Your task to perform on an android device: search for starred emails in the gmail app Image 0: 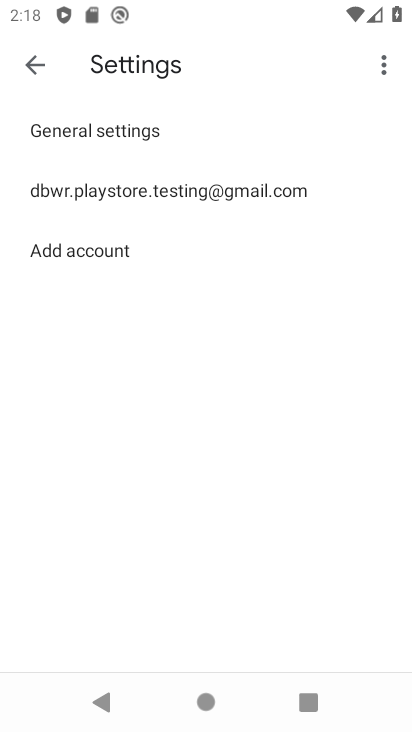
Step 0: press back button
Your task to perform on an android device: search for starred emails in the gmail app Image 1: 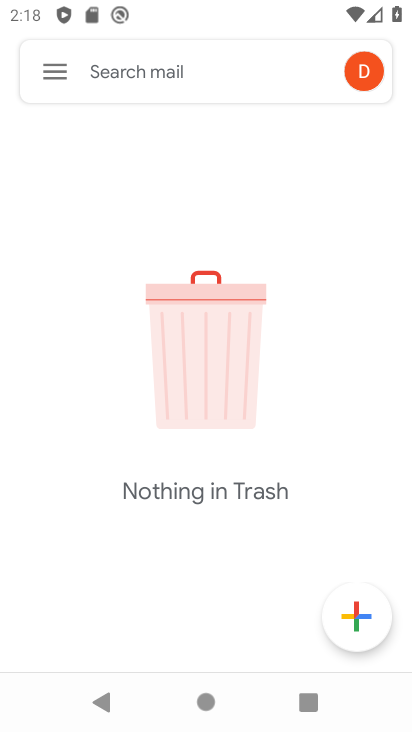
Step 1: click (43, 63)
Your task to perform on an android device: search for starred emails in the gmail app Image 2: 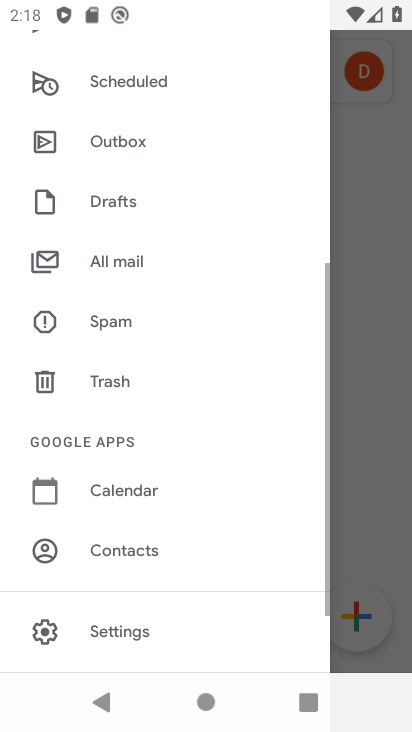
Step 2: drag from (160, 115) to (157, 601)
Your task to perform on an android device: search for starred emails in the gmail app Image 3: 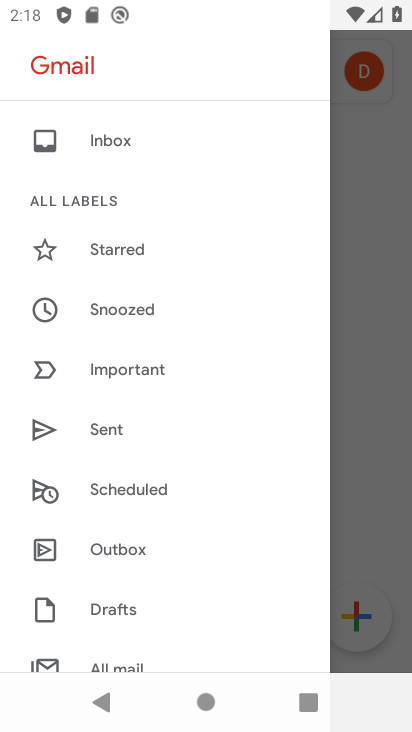
Step 3: click (127, 255)
Your task to perform on an android device: search for starred emails in the gmail app Image 4: 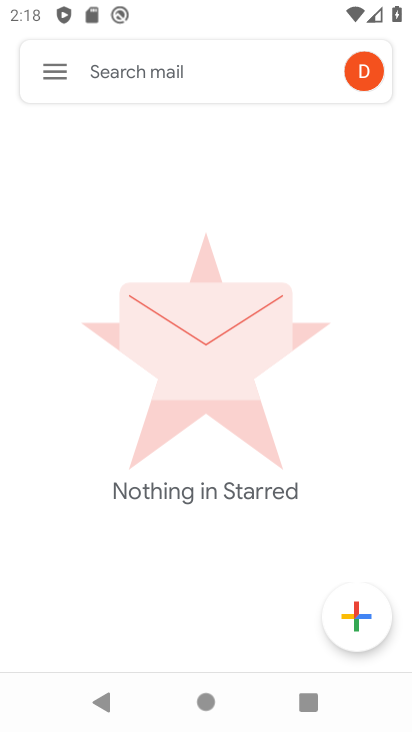
Step 4: task complete